Your task to perform on an android device: Do I have any events tomorrow? Image 0: 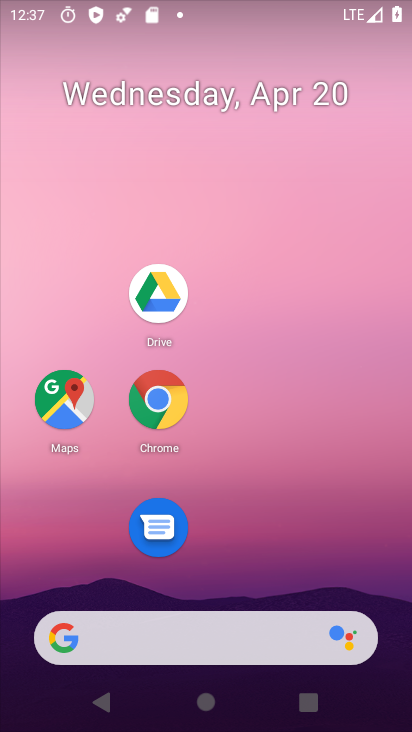
Step 0: drag from (270, 670) to (315, 110)
Your task to perform on an android device: Do I have any events tomorrow? Image 1: 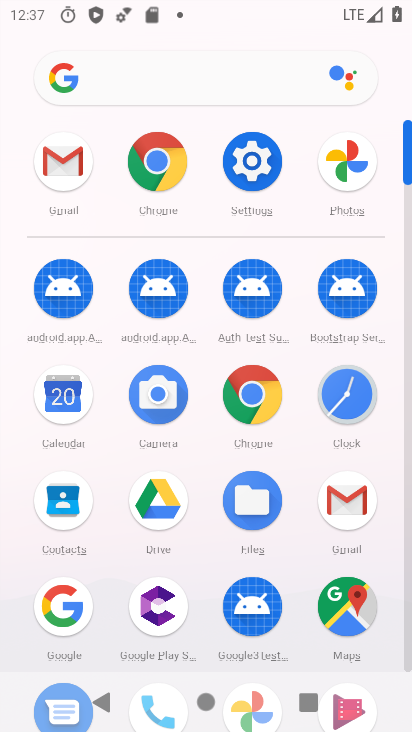
Step 1: click (71, 400)
Your task to perform on an android device: Do I have any events tomorrow? Image 2: 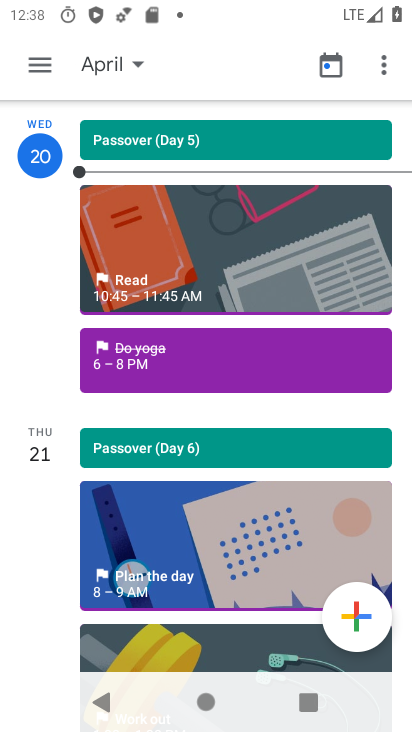
Step 2: click (44, 59)
Your task to perform on an android device: Do I have any events tomorrow? Image 3: 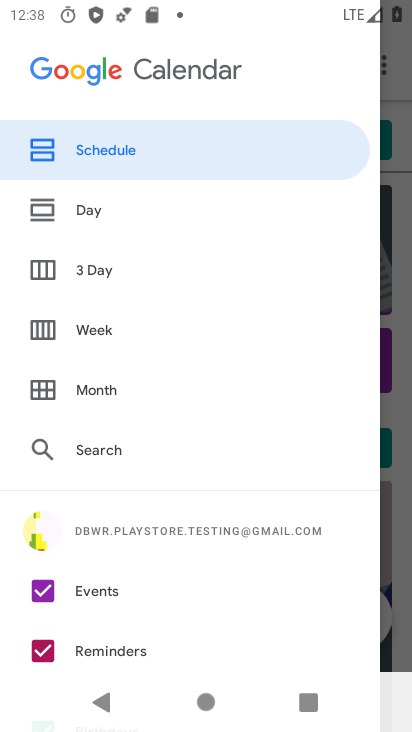
Step 3: click (96, 207)
Your task to perform on an android device: Do I have any events tomorrow? Image 4: 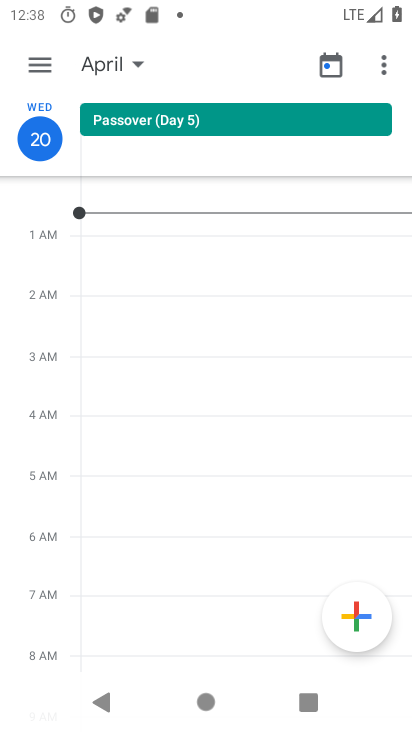
Step 4: click (45, 70)
Your task to perform on an android device: Do I have any events tomorrow? Image 5: 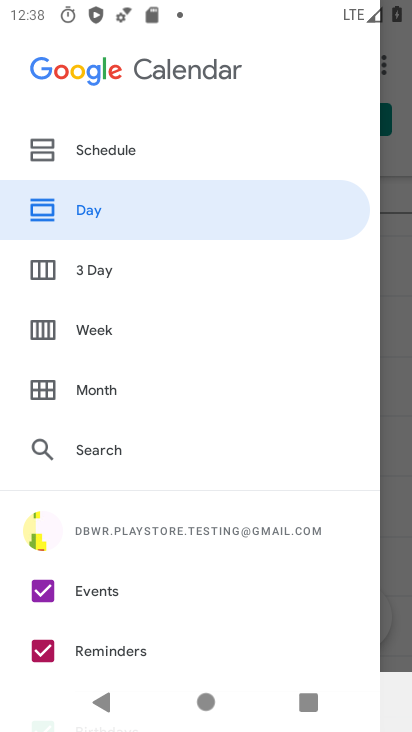
Step 5: click (112, 268)
Your task to perform on an android device: Do I have any events tomorrow? Image 6: 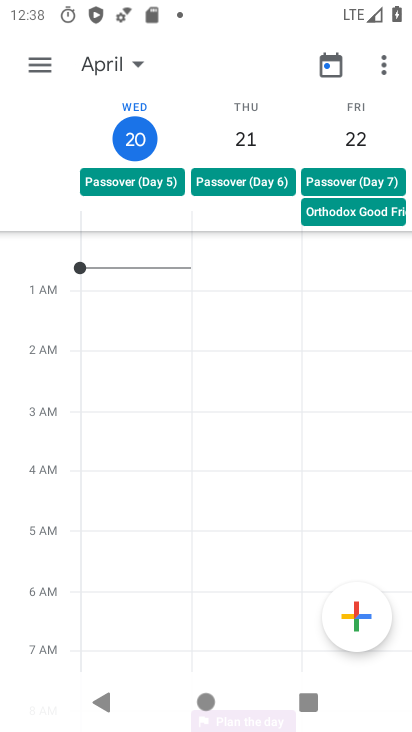
Step 6: click (251, 125)
Your task to perform on an android device: Do I have any events tomorrow? Image 7: 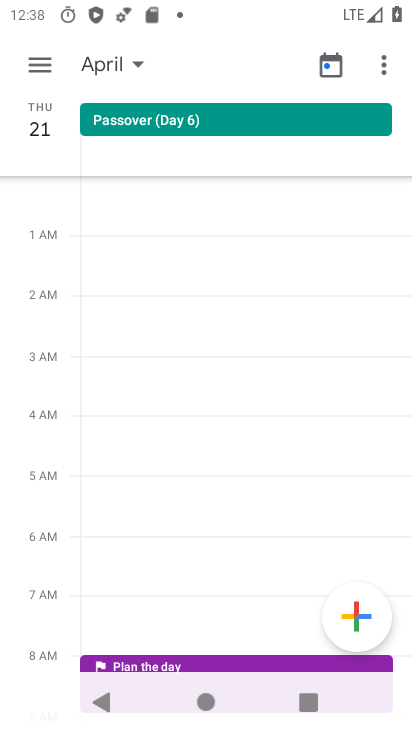
Step 7: task complete